Your task to perform on an android device: What is the news today? Image 0: 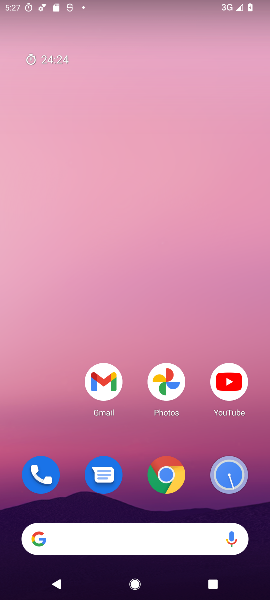
Step 0: press home button
Your task to perform on an android device: What is the news today? Image 1: 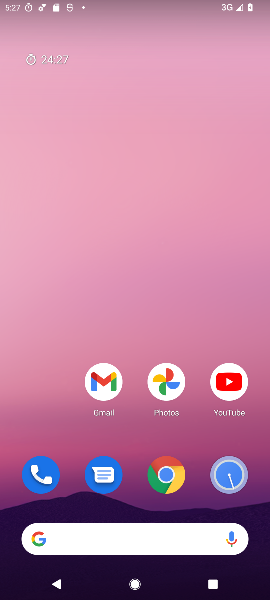
Step 1: task complete